Your task to perform on an android device: Open Google Chrome and click the shortcut for Amazon.com Image 0: 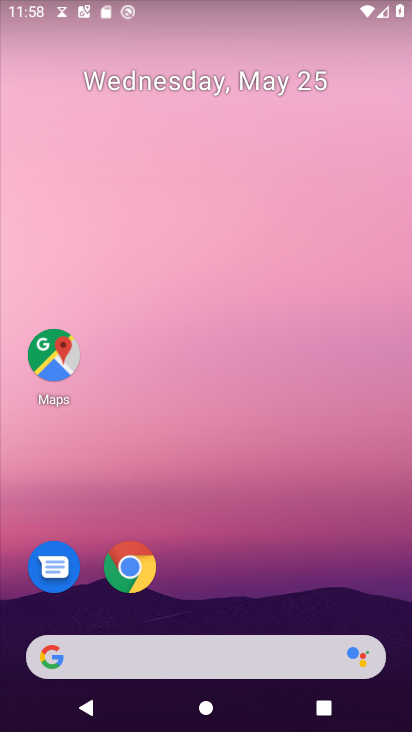
Step 0: click (118, 573)
Your task to perform on an android device: Open Google Chrome and click the shortcut for Amazon.com Image 1: 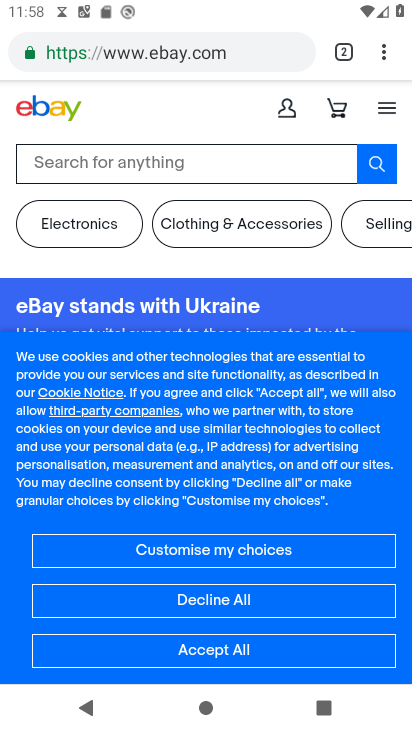
Step 1: click (335, 54)
Your task to perform on an android device: Open Google Chrome and click the shortcut for Amazon.com Image 2: 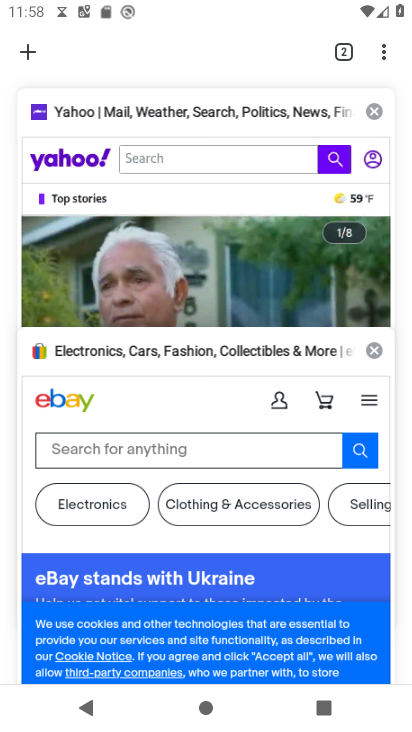
Step 2: click (18, 47)
Your task to perform on an android device: Open Google Chrome and click the shortcut for Amazon.com Image 3: 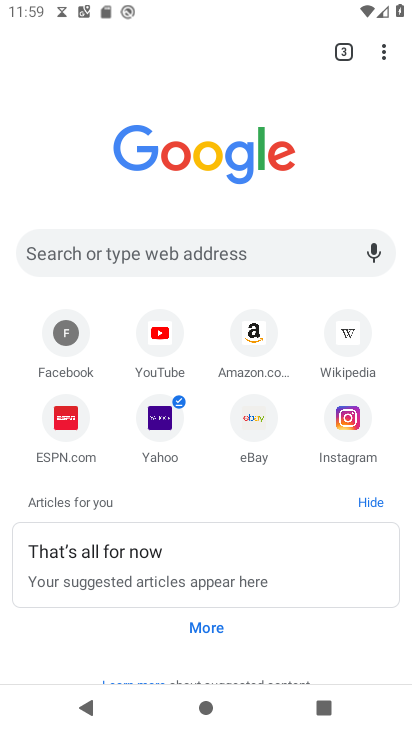
Step 3: click (248, 353)
Your task to perform on an android device: Open Google Chrome and click the shortcut for Amazon.com Image 4: 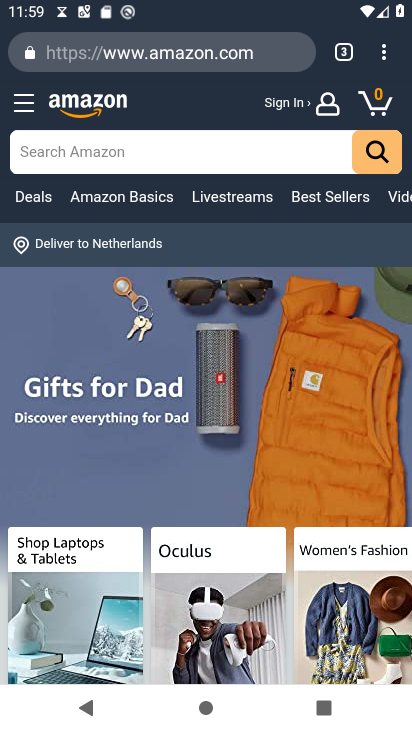
Step 4: task complete